Your task to perform on an android device: turn on the 12-hour format for clock Image 0: 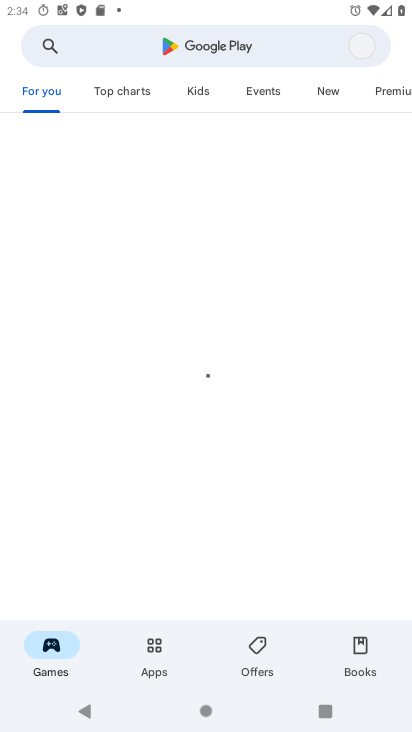
Step 0: drag from (166, 649) to (223, 166)
Your task to perform on an android device: turn on the 12-hour format for clock Image 1: 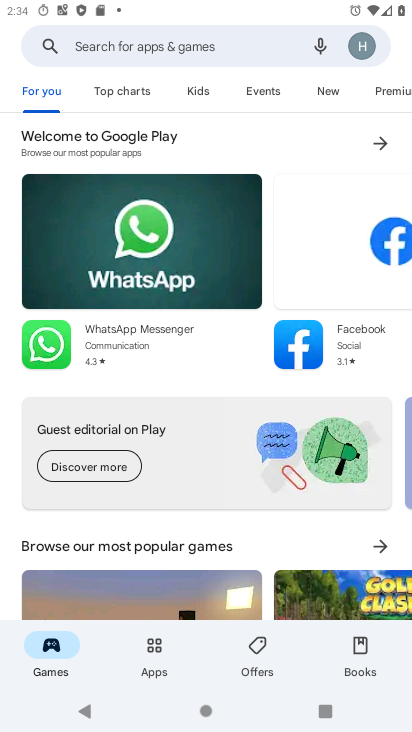
Step 1: drag from (177, 580) to (362, 52)
Your task to perform on an android device: turn on the 12-hour format for clock Image 2: 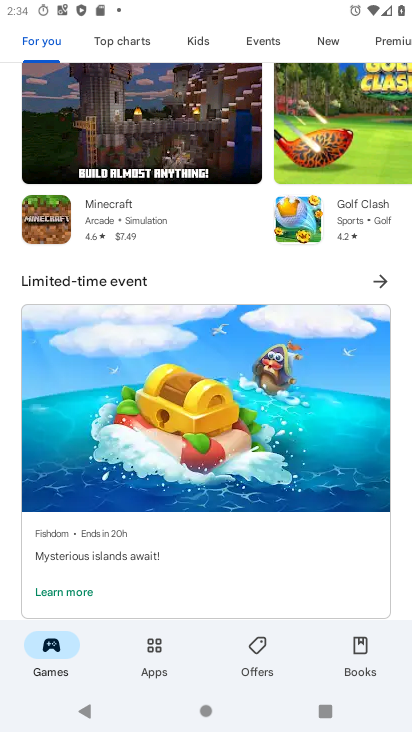
Step 2: drag from (243, 475) to (316, 84)
Your task to perform on an android device: turn on the 12-hour format for clock Image 3: 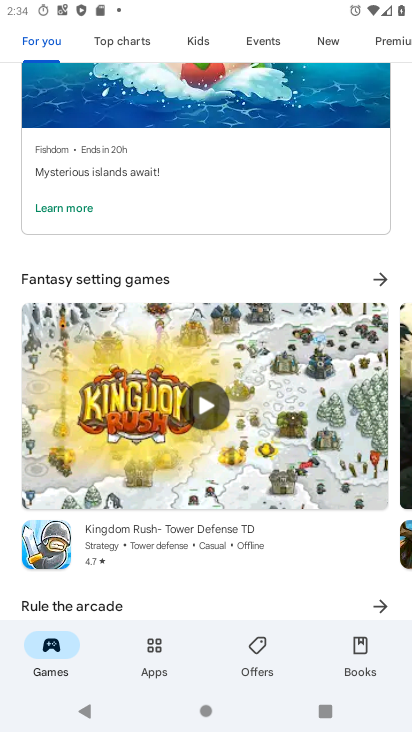
Step 3: press home button
Your task to perform on an android device: turn on the 12-hour format for clock Image 4: 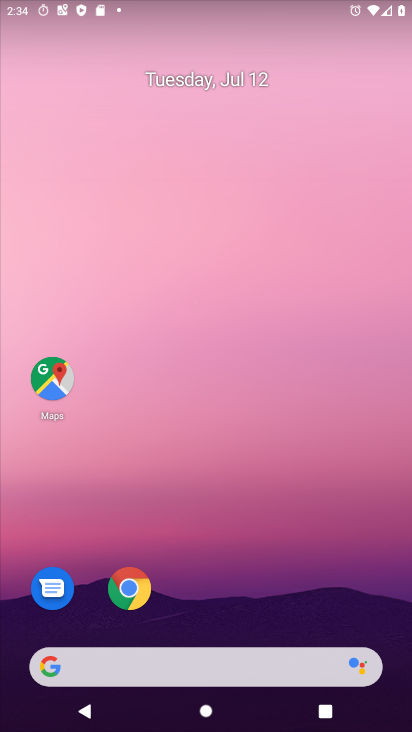
Step 4: drag from (222, 592) to (399, 171)
Your task to perform on an android device: turn on the 12-hour format for clock Image 5: 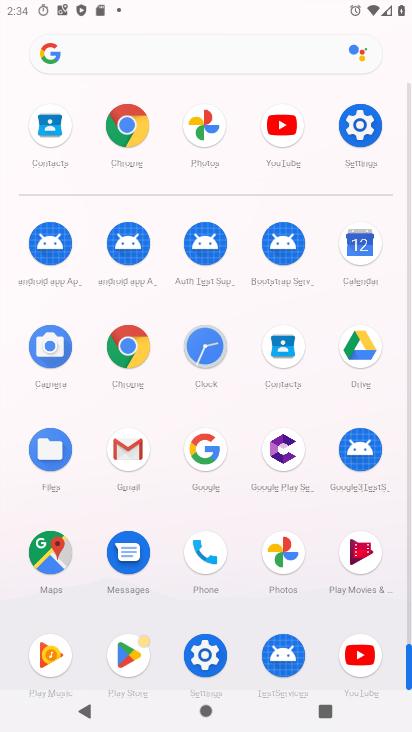
Step 5: click (196, 354)
Your task to perform on an android device: turn on the 12-hour format for clock Image 6: 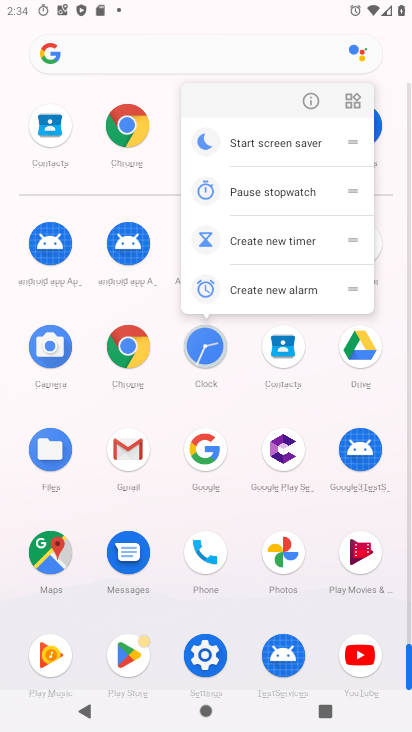
Step 6: click (310, 102)
Your task to perform on an android device: turn on the 12-hour format for clock Image 7: 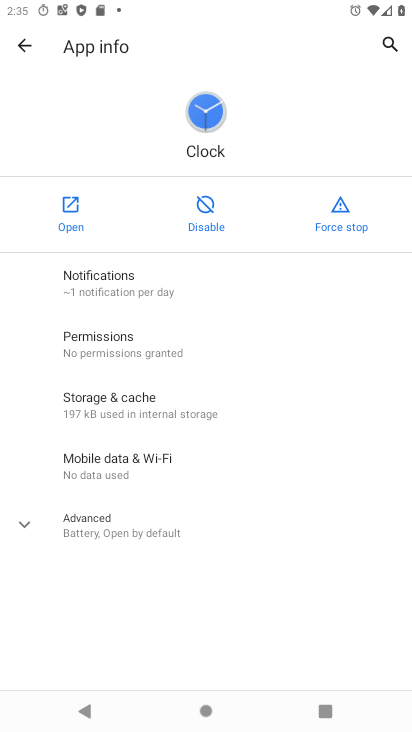
Step 7: click (64, 211)
Your task to perform on an android device: turn on the 12-hour format for clock Image 8: 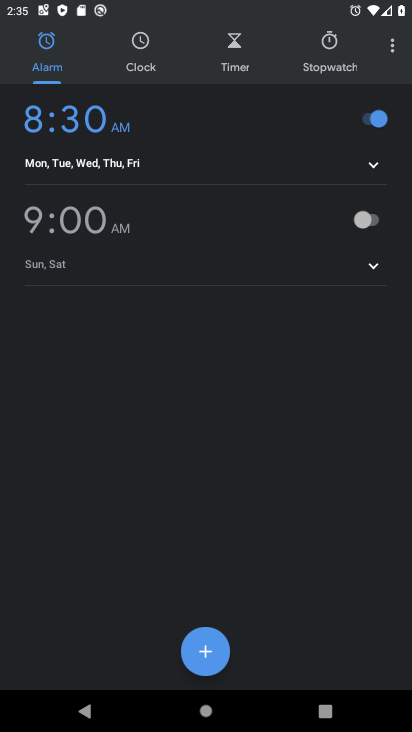
Step 8: click (388, 44)
Your task to perform on an android device: turn on the 12-hour format for clock Image 9: 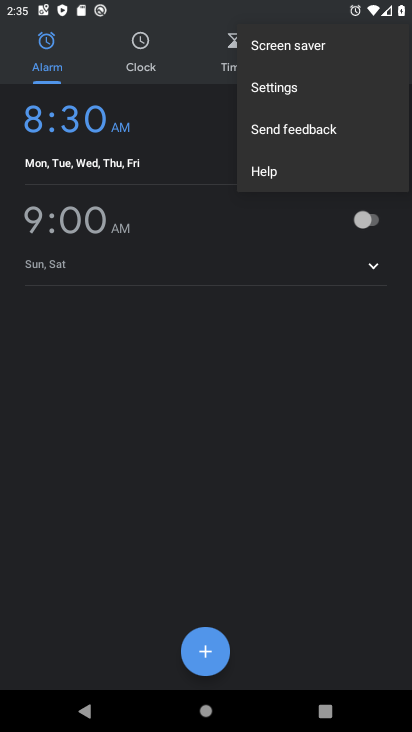
Step 9: click (278, 89)
Your task to perform on an android device: turn on the 12-hour format for clock Image 10: 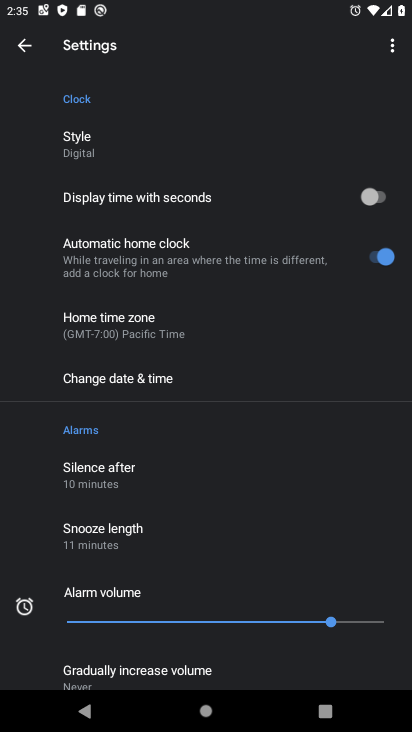
Step 10: click (154, 400)
Your task to perform on an android device: turn on the 12-hour format for clock Image 11: 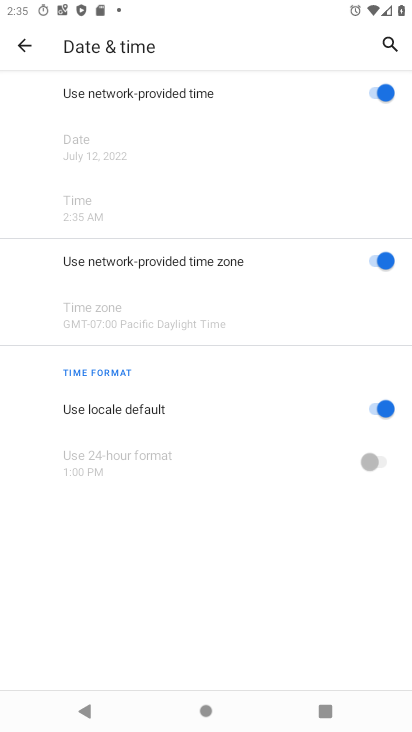
Step 11: task complete